Your task to perform on an android device: Do I have any events this weekend? Image 0: 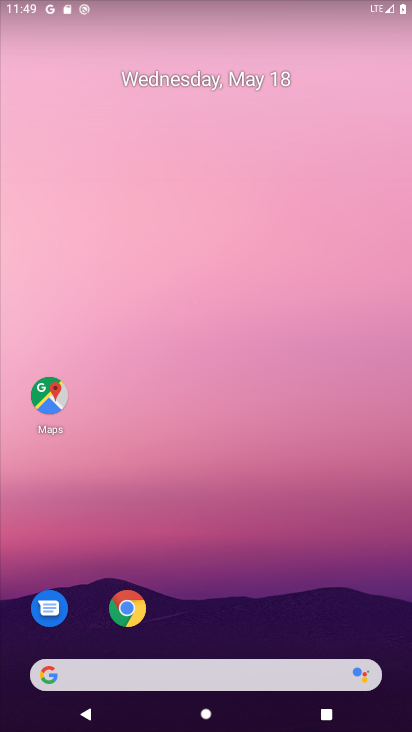
Step 0: drag from (225, 557) to (206, 231)
Your task to perform on an android device: Do I have any events this weekend? Image 1: 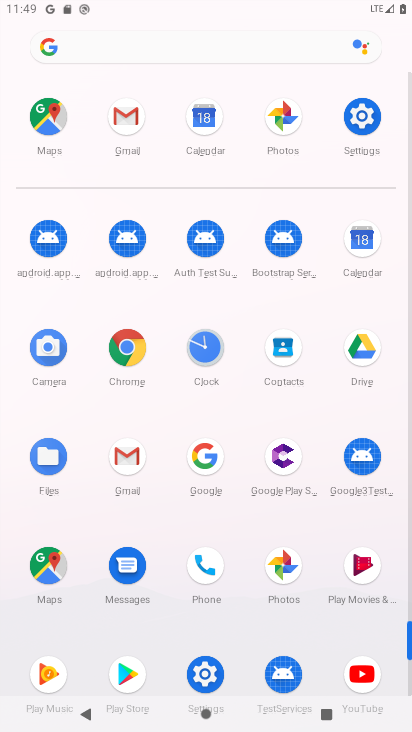
Step 1: click (191, 126)
Your task to perform on an android device: Do I have any events this weekend? Image 2: 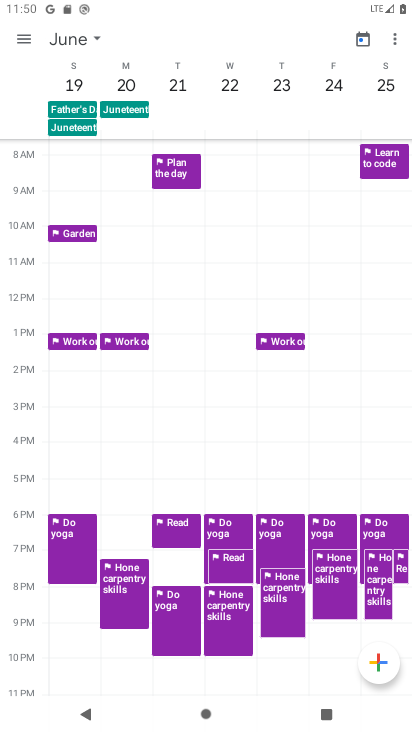
Step 2: click (87, 42)
Your task to perform on an android device: Do I have any events this weekend? Image 3: 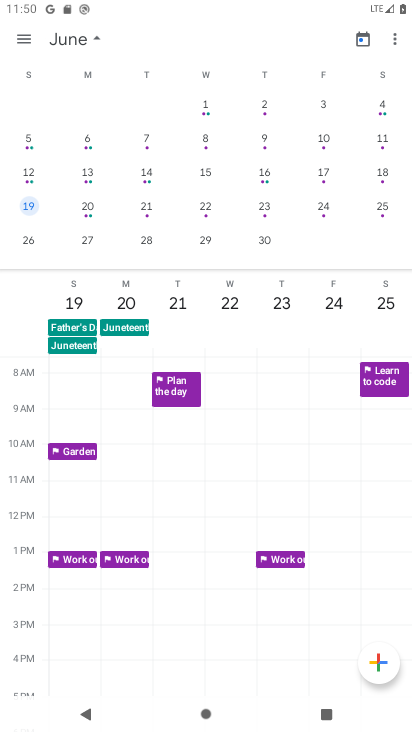
Step 3: drag from (30, 210) to (353, 228)
Your task to perform on an android device: Do I have any events this weekend? Image 4: 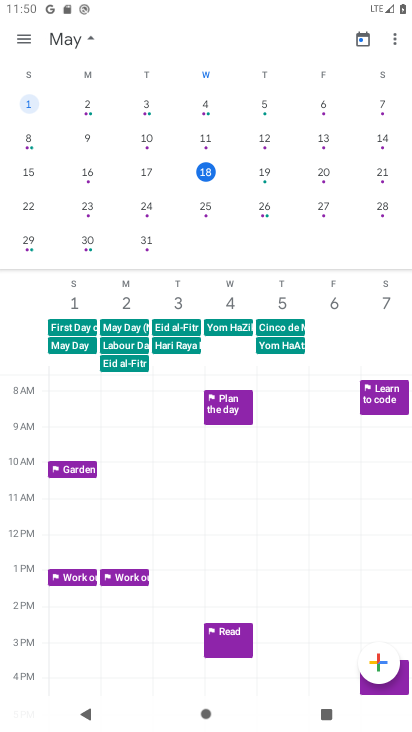
Step 4: click (27, 41)
Your task to perform on an android device: Do I have any events this weekend? Image 5: 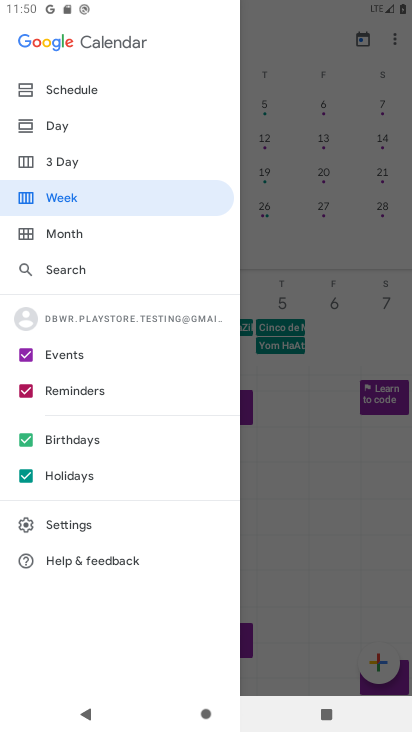
Step 5: click (64, 87)
Your task to perform on an android device: Do I have any events this weekend? Image 6: 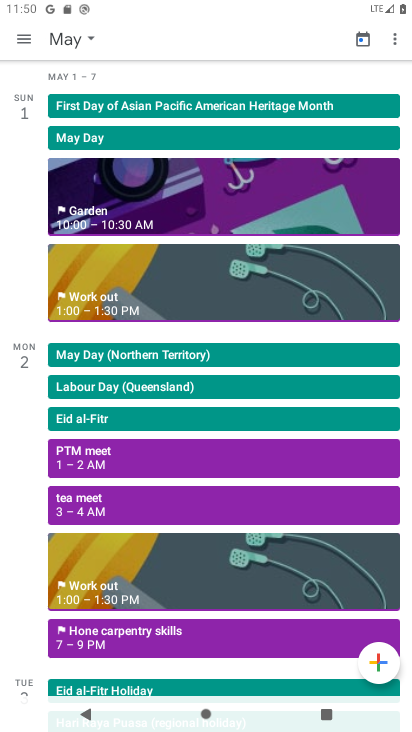
Step 6: click (65, 39)
Your task to perform on an android device: Do I have any events this weekend? Image 7: 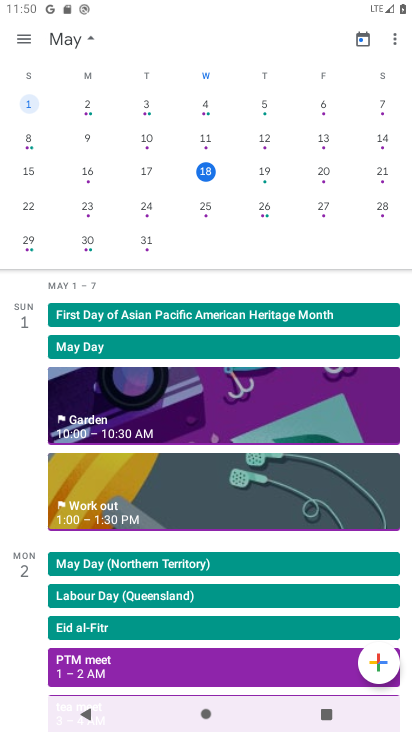
Step 7: click (381, 167)
Your task to perform on an android device: Do I have any events this weekend? Image 8: 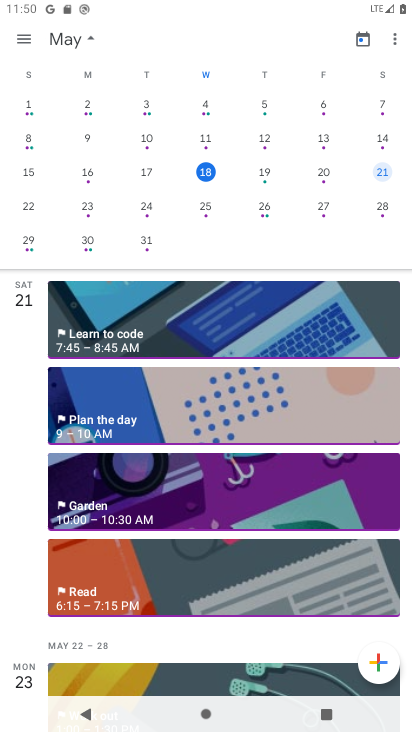
Step 8: task complete